Your task to perform on an android device: Turn on the flashlight Image 0: 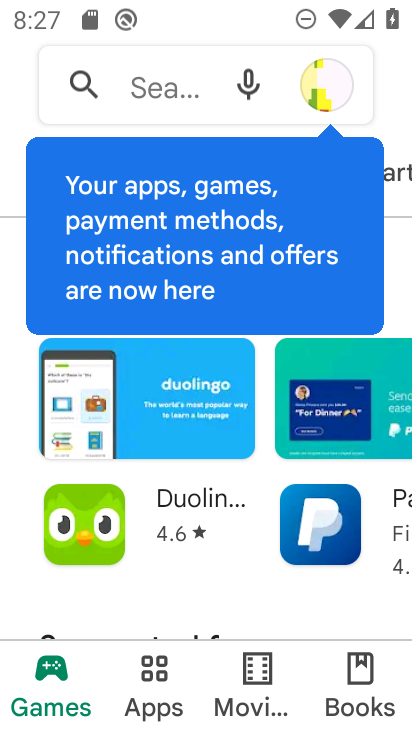
Step 0: press home button
Your task to perform on an android device: Turn on the flashlight Image 1: 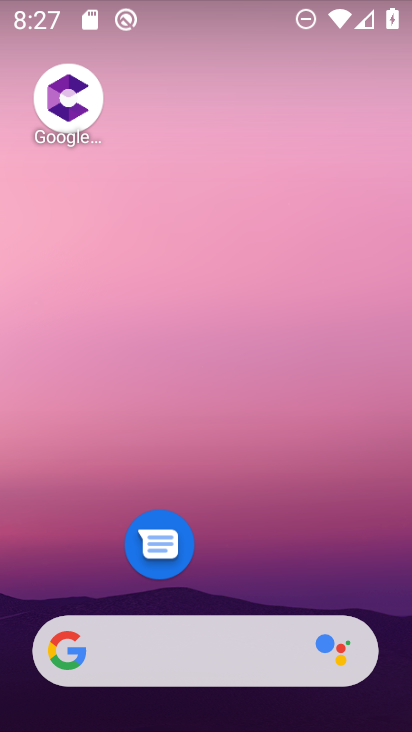
Step 1: drag from (237, 547) to (237, 141)
Your task to perform on an android device: Turn on the flashlight Image 2: 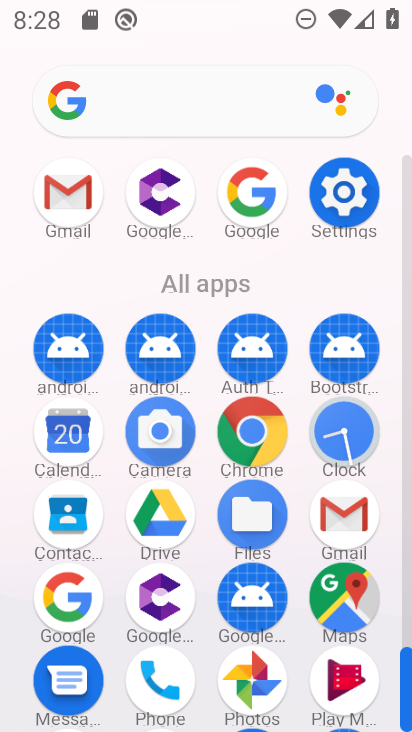
Step 2: click (328, 192)
Your task to perform on an android device: Turn on the flashlight Image 3: 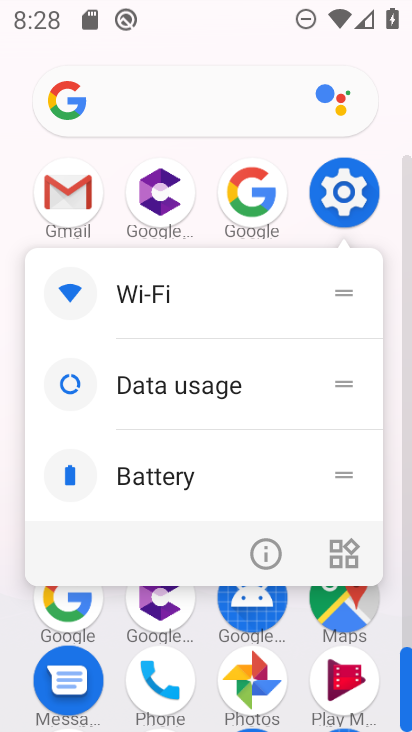
Step 3: click (332, 189)
Your task to perform on an android device: Turn on the flashlight Image 4: 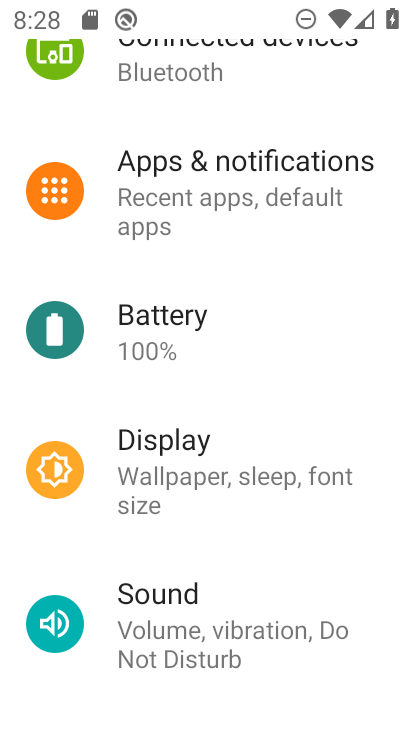
Step 4: task complete